Your task to perform on an android device: Open Youtube and go to the subscriptions tab Image 0: 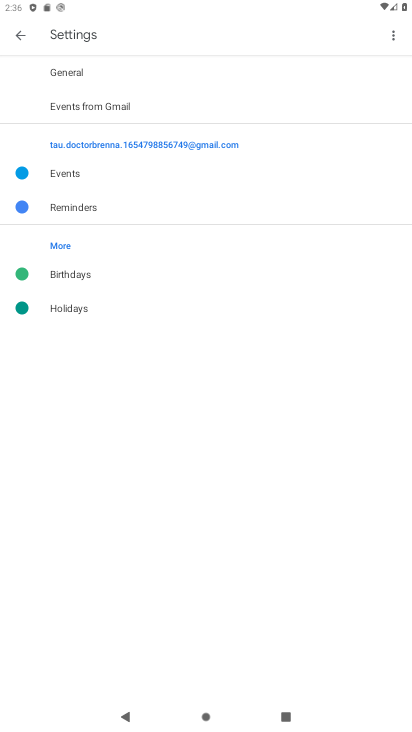
Step 0: press home button
Your task to perform on an android device: Open Youtube and go to the subscriptions tab Image 1: 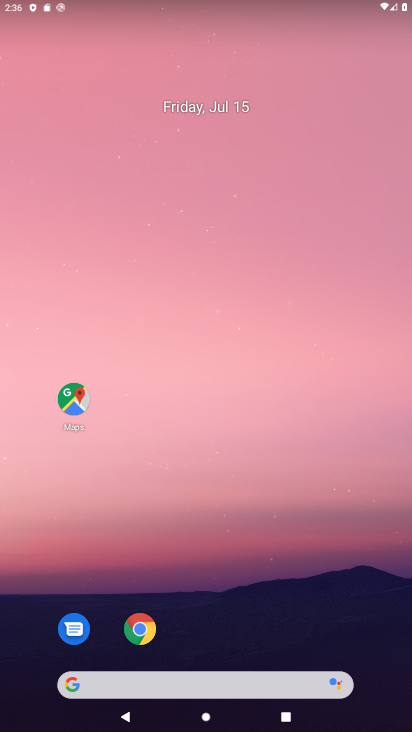
Step 1: drag from (229, 664) to (148, 66)
Your task to perform on an android device: Open Youtube and go to the subscriptions tab Image 2: 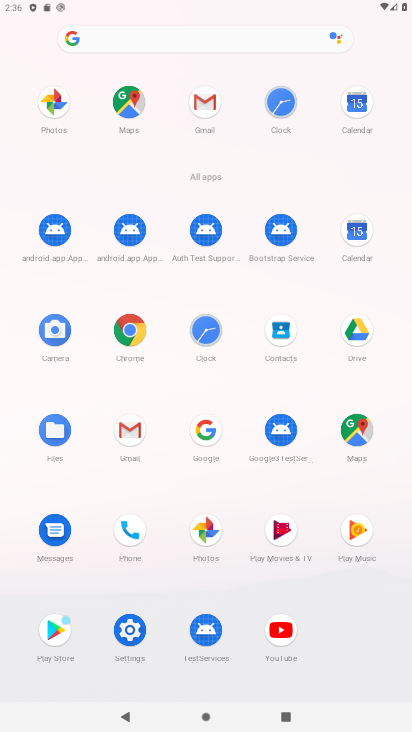
Step 2: click (280, 637)
Your task to perform on an android device: Open Youtube and go to the subscriptions tab Image 3: 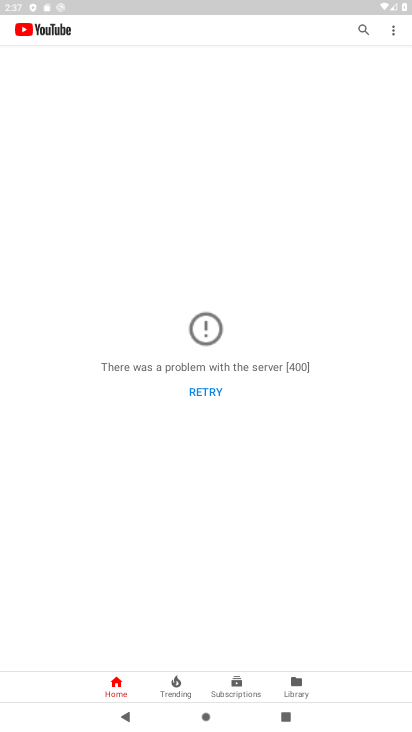
Step 3: click (235, 686)
Your task to perform on an android device: Open Youtube and go to the subscriptions tab Image 4: 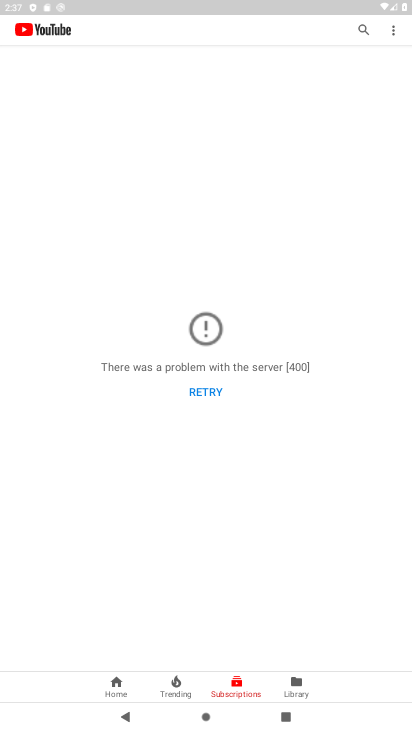
Step 4: click (199, 390)
Your task to perform on an android device: Open Youtube and go to the subscriptions tab Image 5: 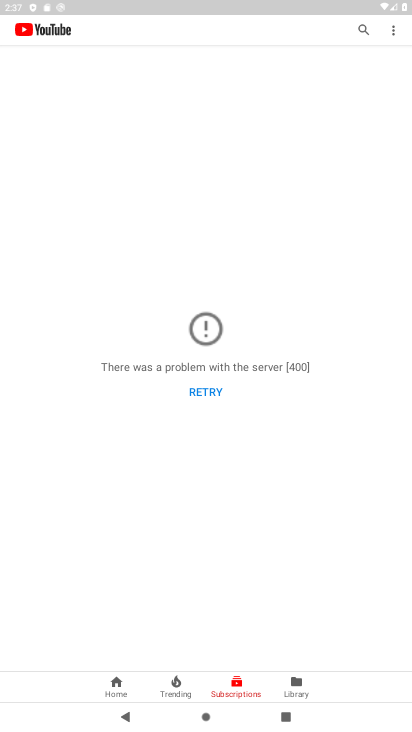
Step 5: task complete